Your task to perform on an android device: turn on translation in the chrome app Image 0: 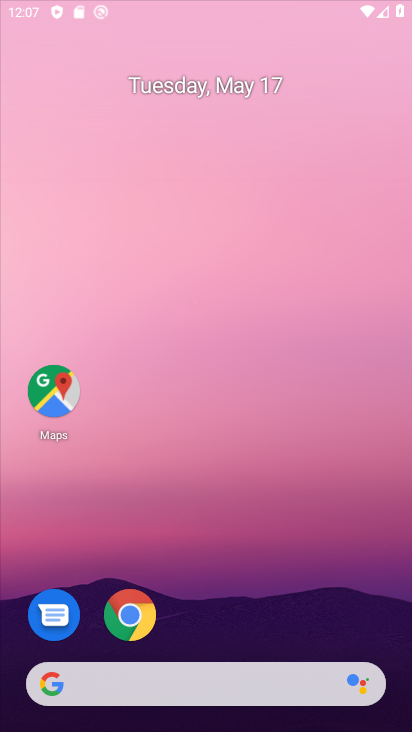
Step 0: click (217, 274)
Your task to perform on an android device: turn on translation in the chrome app Image 1: 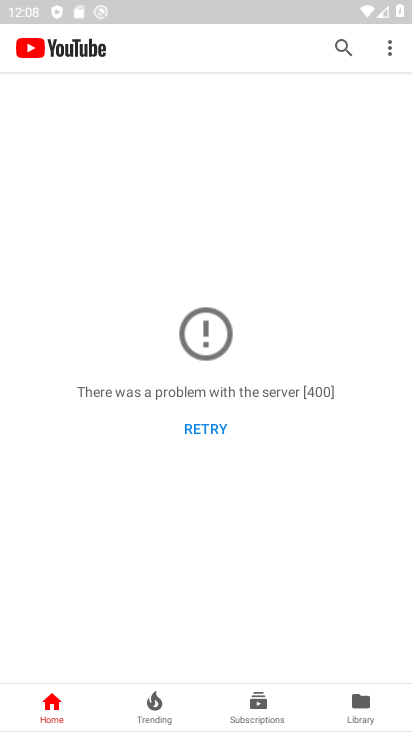
Step 1: press back button
Your task to perform on an android device: turn on translation in the chrome app Image 2: 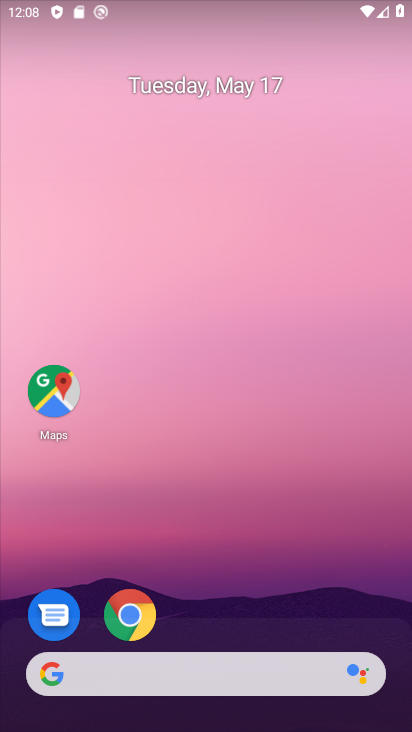
Step 2: click (125, 616)
Your task to perform on an android device: turn on translation in the chrome app Image 3: 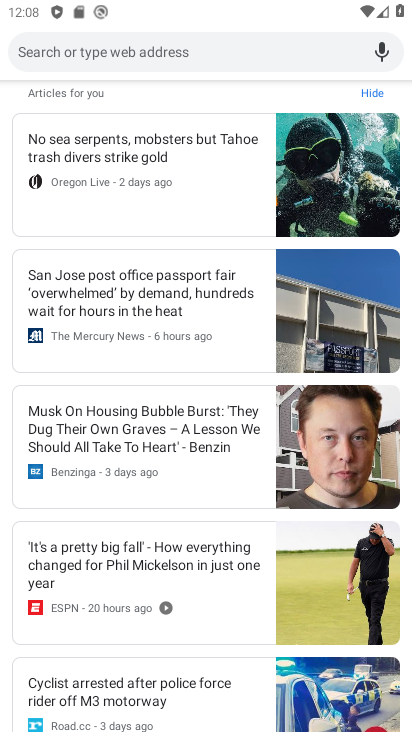
Step 3: drag from (272, 108) to (264, 550)
Your task to perform on an android device: turn on translation in the chrome app Image 4: 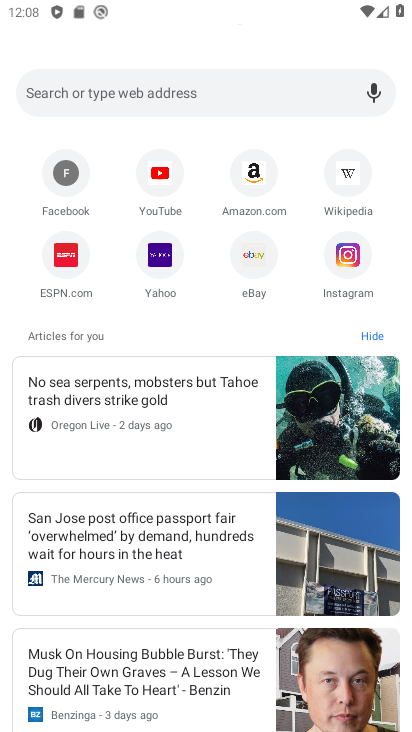
Step 4: drag from (223, 95) to (235, 376)
Your task to perform on an android device: turn on translation in the chrome app Image 5: 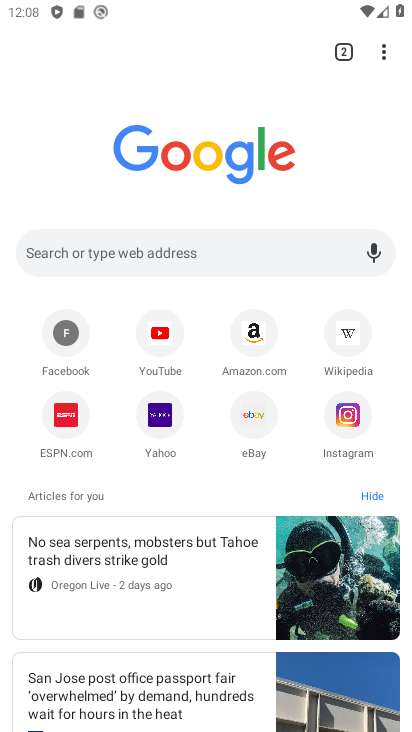
Step 5: click (376, 43)
Your task to perform on an android device: turn on translation in the chrome app Image 6: 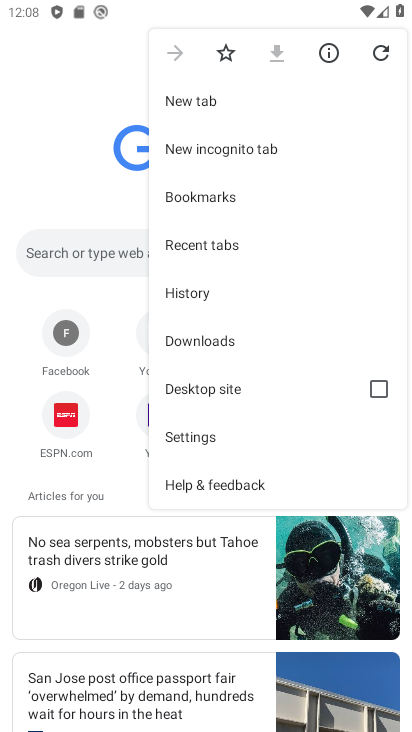
Step 6: click (202, 432)
Your task to perform on an android device: turn on translation in the chrome app Image 7: 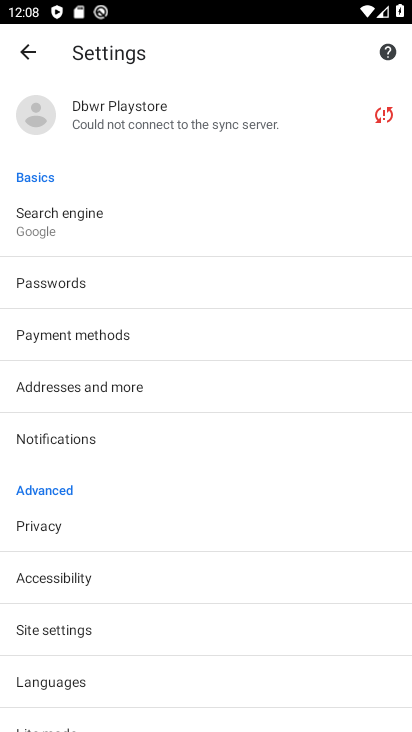
Step 7: click (59, 631)
Your task to perform on an android device: turn on translation in the chrome app Image 8: 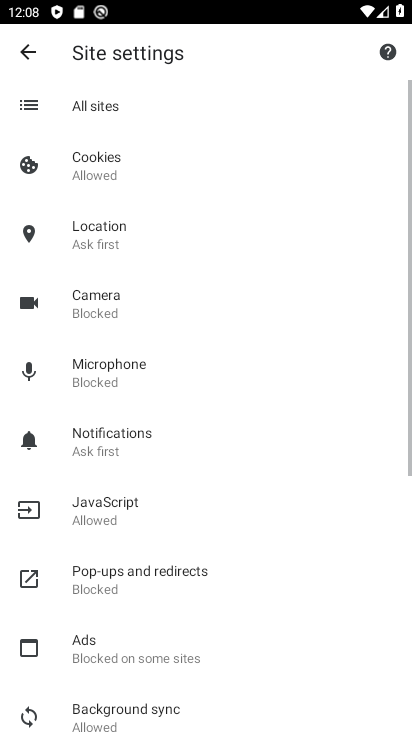
Step 8: click (18, 47)
Your task to perform on an android device: turn on translation in the chrome app Image 9: 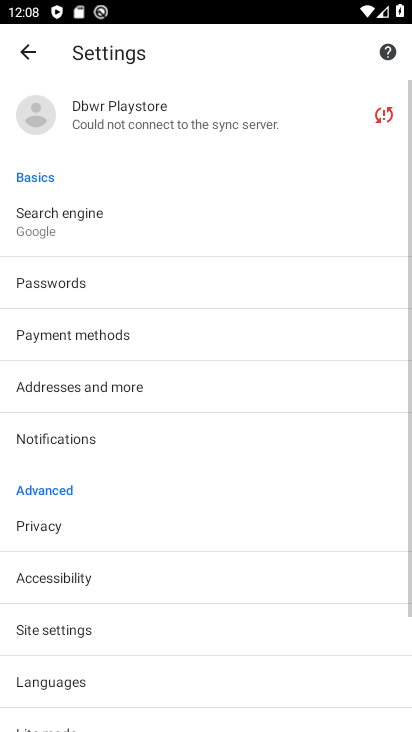
Step 9: click (77, 683)
Your task to perform on an android device: turn on translation in the chrome app Image 10: 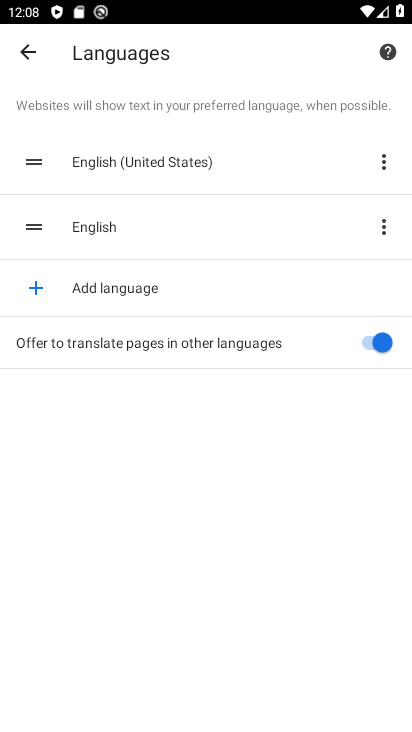
Step 10: task complete